Your task to perform on an android device: Open the calendar and show me this week's events Image 0: 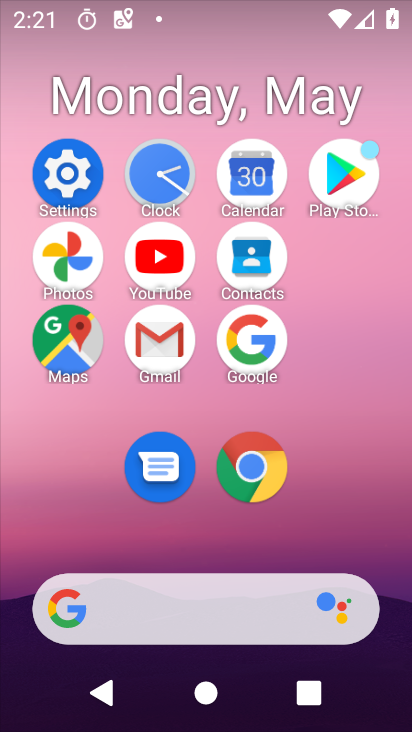
Step 0: click (254, 162)
Your task to perform on an android device: Open the calendar and show me this week's events Image 1: 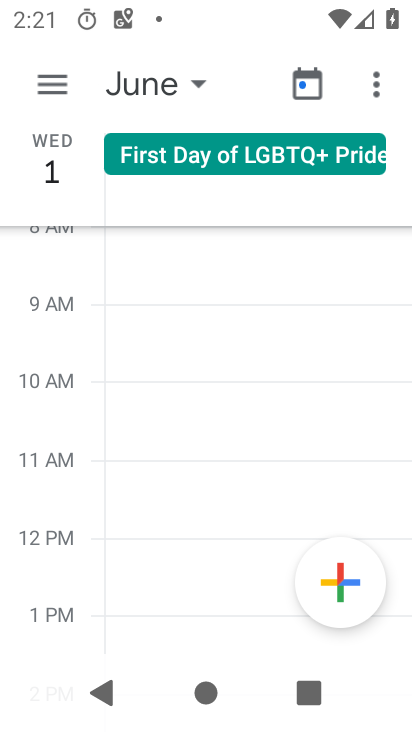
Step 1: click (62, 89)
Your task to perform on an android device: Open the calendar and show me this week's events Image 2: 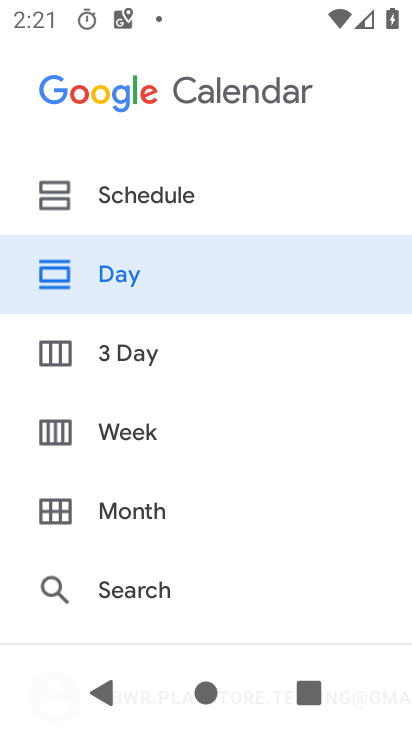
Step 2: click (173, 428)
Your task to perform on an android device: Open the calendar and show me this week's events Image 3: 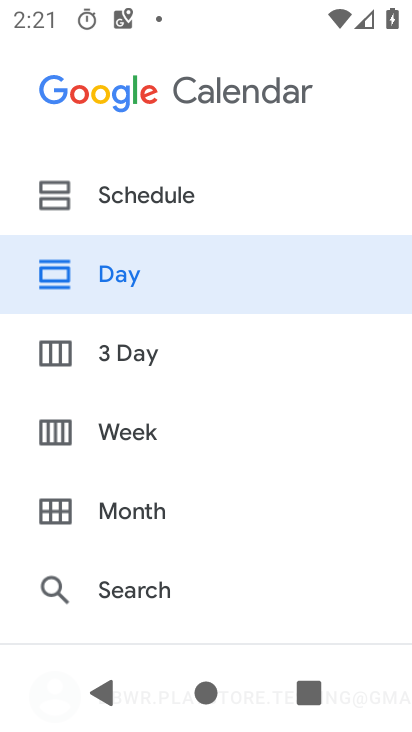
Step 3: click (165, 414)
Your task to perform on an android device: Open the calendar and show me this week's events Image 4: 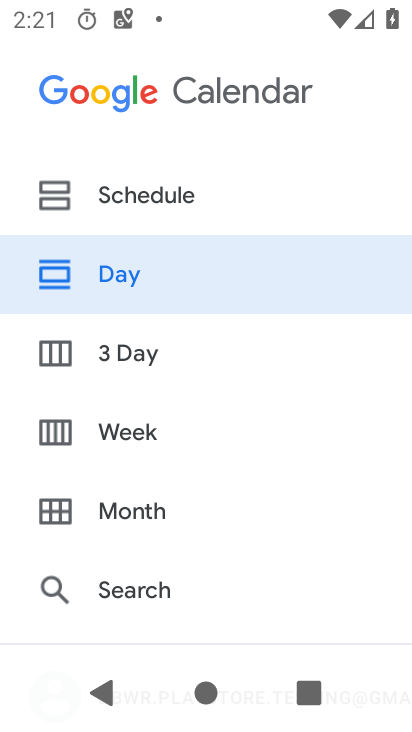
Step 4: click (158, 423)
Your task to perform on an android device: Open the calendar and show me this week's events Image 5: 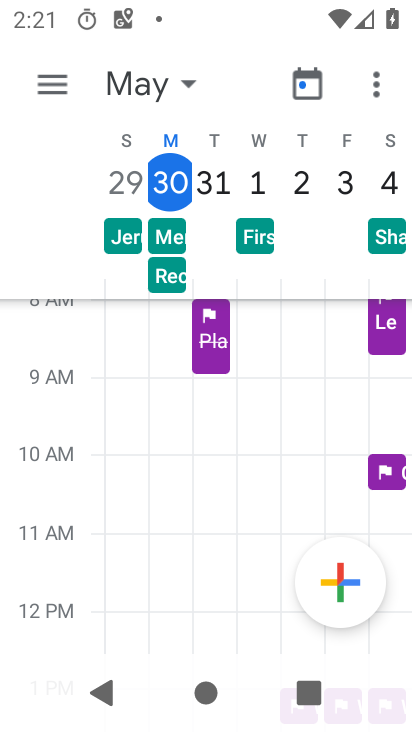
Step 5: task complete